Your task to perform on an android device: Show me productivity apps on the Play Store Image 0: 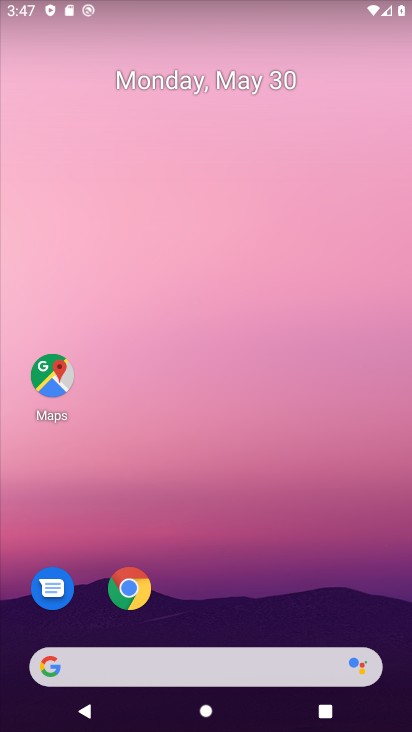
Step 0: drag from (185, 538) to (187, 149)
Your task to perform on an android device: Show me productivity apps on the Play Store Image 1: 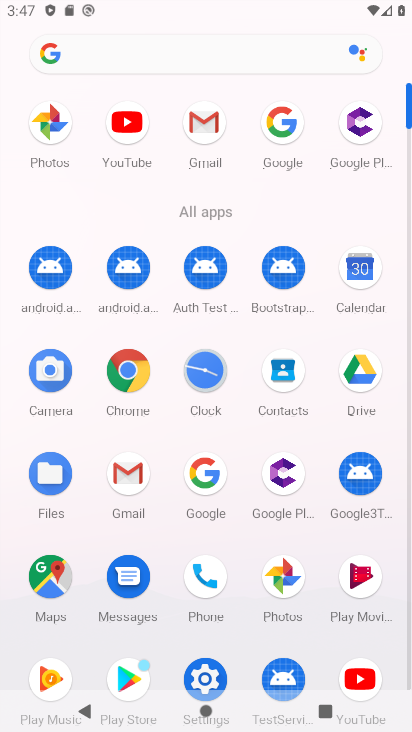
Step 1: drag from (153, 642) to (202, 231)
Your task to perform on an android device: Show me productivity apps on the Play Store Image 2: 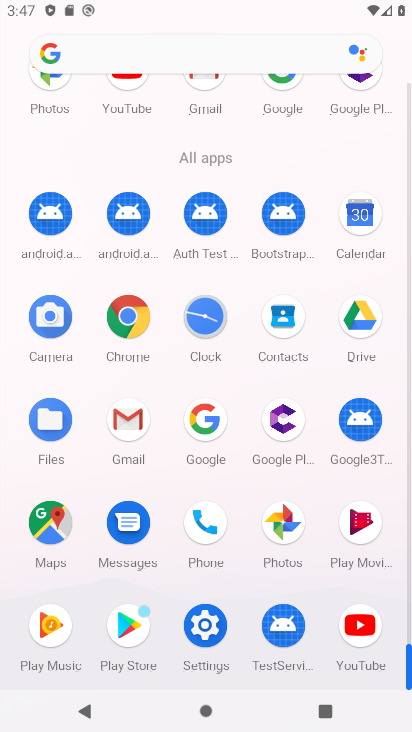
Step 2: click (131, 629)
Your task to perform on an android device: Show me productivity apps on the Play Store Image 3: 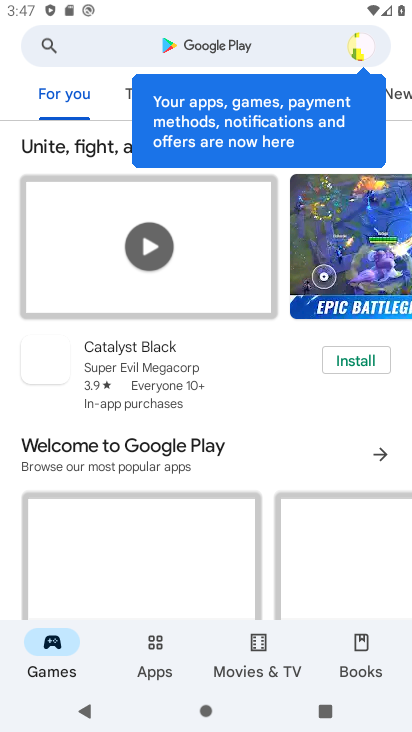
Step 3: click (143, 659)
Your task to perform on an android device: Show me productivity apps on the Play Store Image 4: 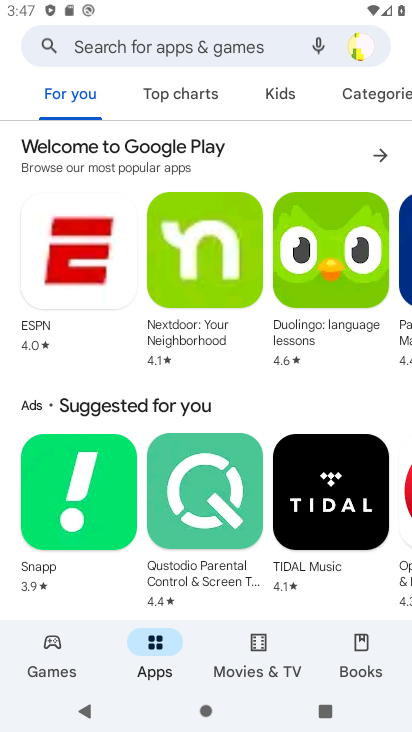
Step 4: task complete